Your task to perform on an android device: show emergency info Image 0: 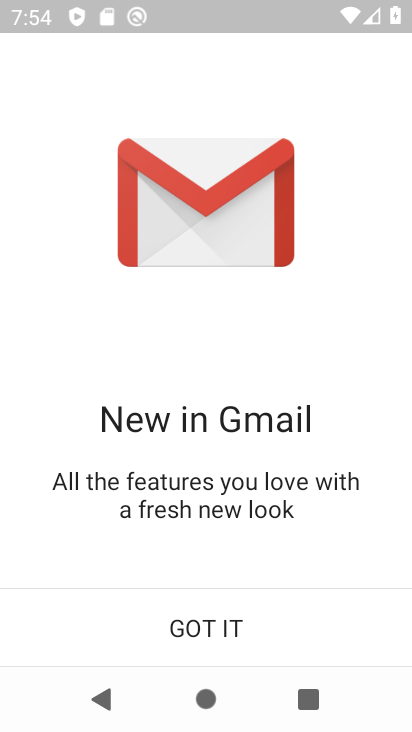
Step 0: click (186, 627)
Your task to perform on an android device: show emergency info Image 1: 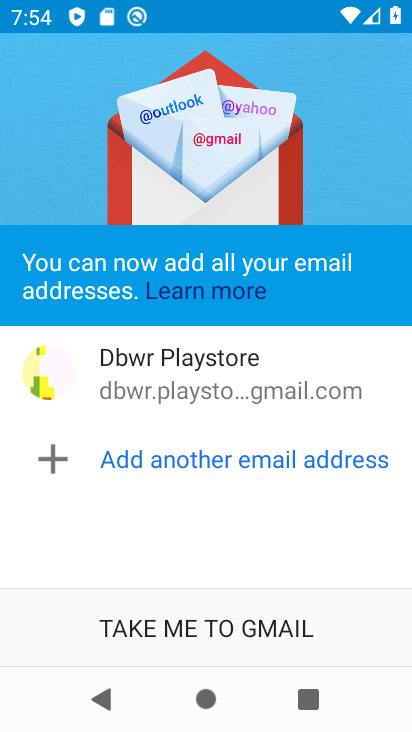
Step 1: press home button
Your task to perform on an android device: show emergency info Image 2: 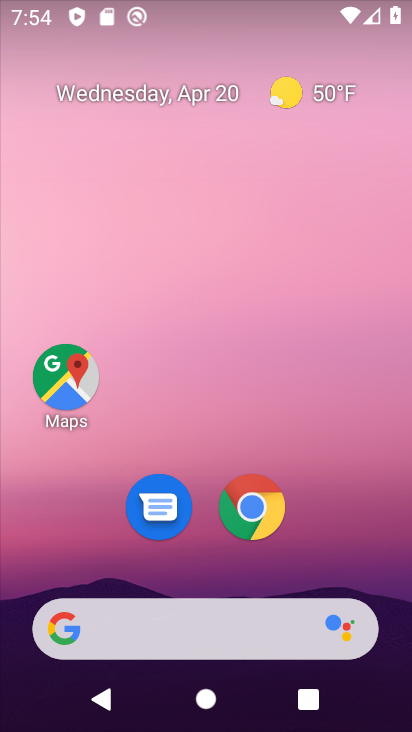
Step 2: drag from (266, 655) to (276, 233)
Your task to perform on an android device: show emergency info Image 3: 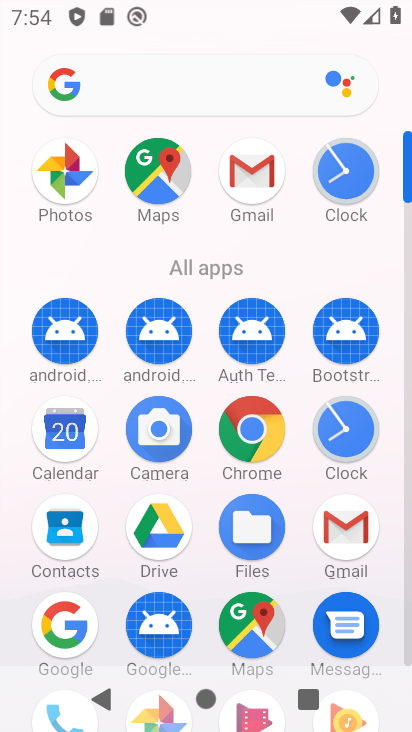
Step 3: drag from (213, 623) to (253, 310)
Your task to perform on an android device: show emergency info Image 4: 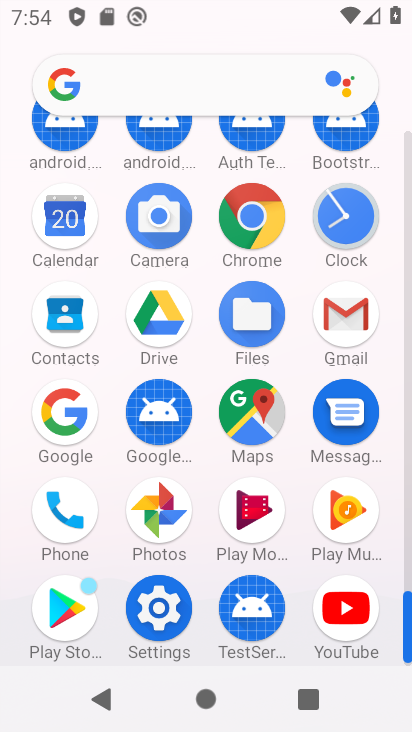
Step 4: click (155, 617)
Your task to perform on an android device: show emergency info Image 5: 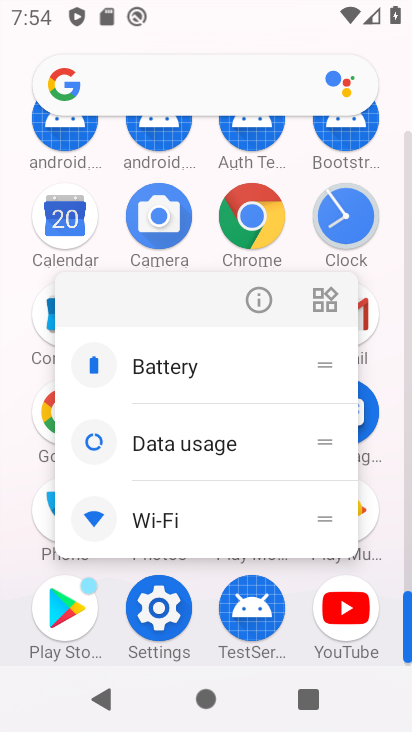
Step 5: click (175, 602)
Your task to perform on an android device: show emergency info Image 6: 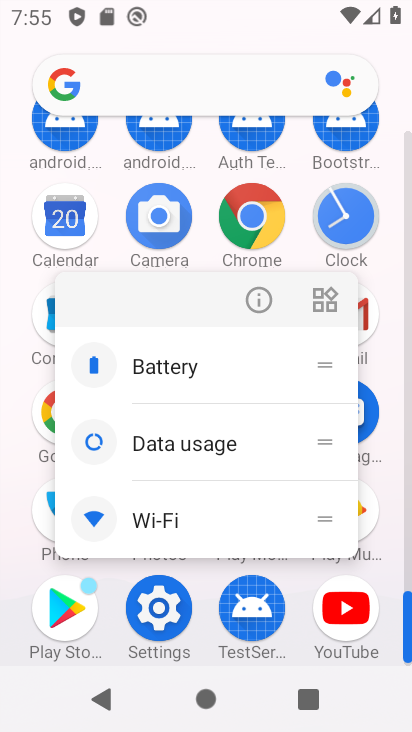
Step 6: click (156, 608)
Your task to perform on an android device: show emergency info Image 7: 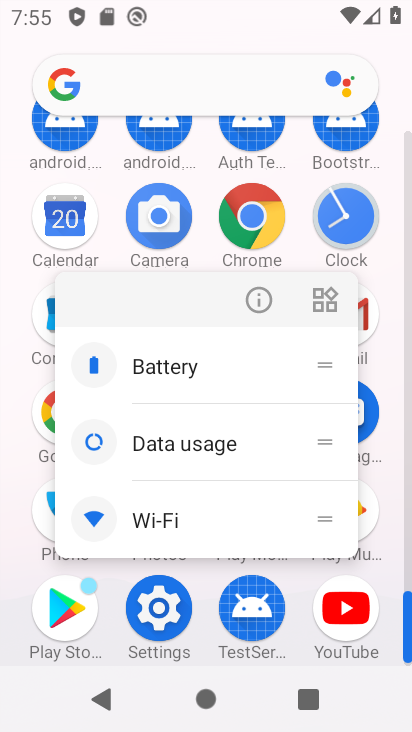
Step 7: click (160, 608)
Your task to perform on an android device: show emergency info Image 8: 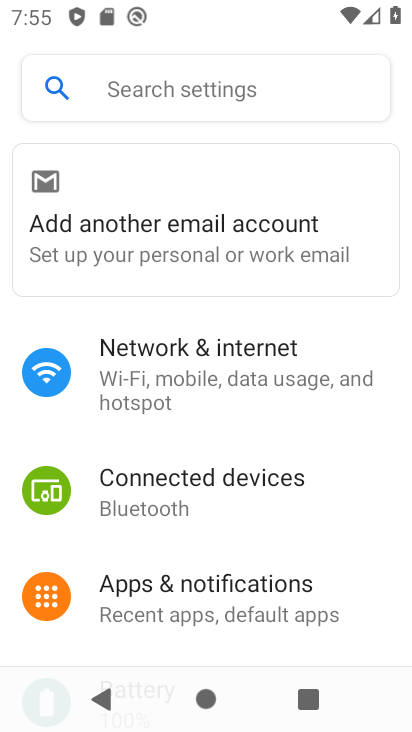
Step 8: drag from (187, 563) to (250, 274)
Your task to perform on an android device: show emergency info Image 9: 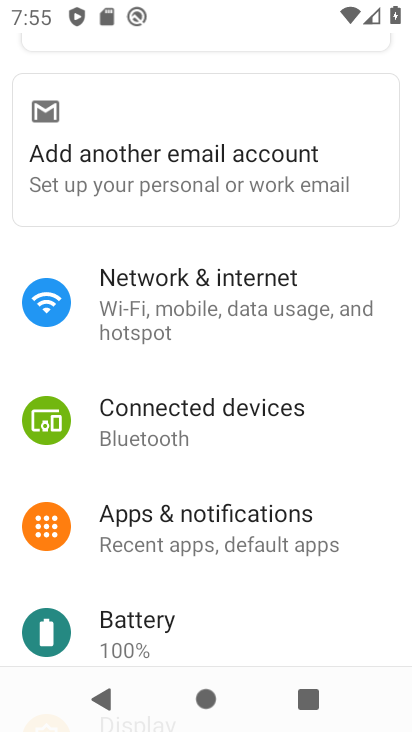
Step 9: drag from (207, 534) to (247, 331)
Your task to perform on an android device: show emergency info Image 10: 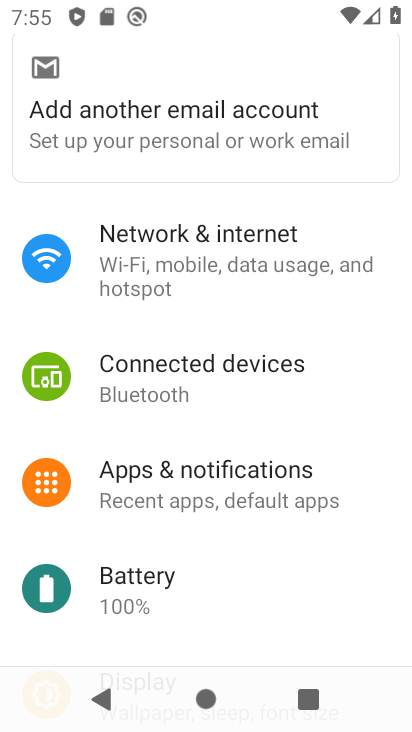
Step 10: drag from (207, 631) to (264, 437)
Your task to perform on an android device: show emergency info Image 11: 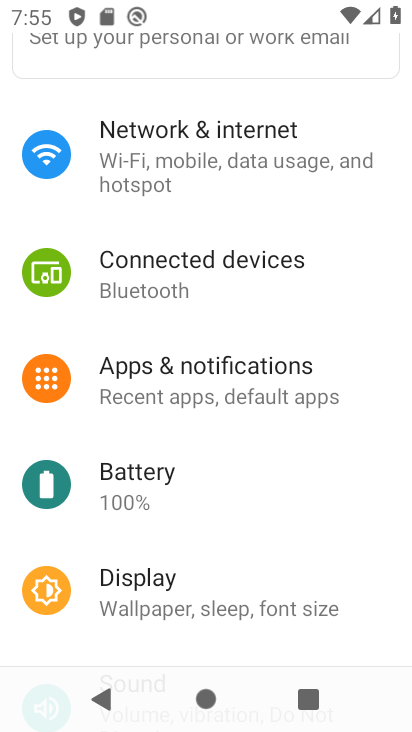
Step 11: drag from (194, 574) to (198, 118)
Your task to perform on an android device: show emergency info Image 12: 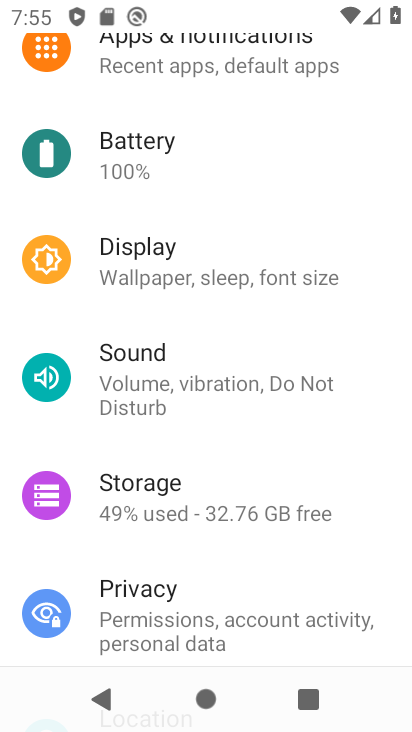
Step 12: drag from (191, 553) to (210, 268)
Your task to perform on an android device: show emergency info Image 13: 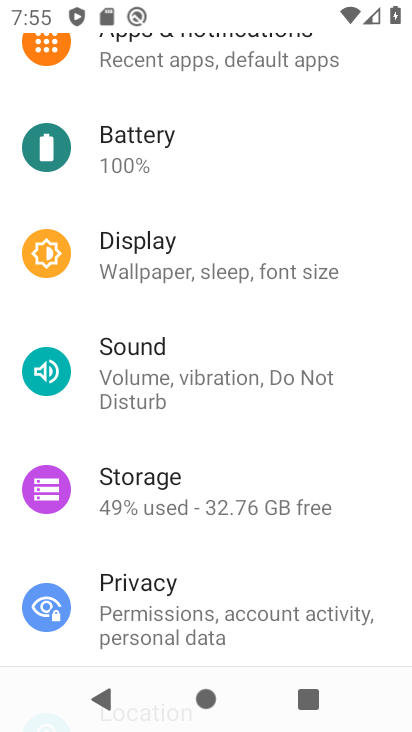
Step 13: drag from (176, 591) to (209, 336)
Your task to perform on an android device: show emergency info Image 14: 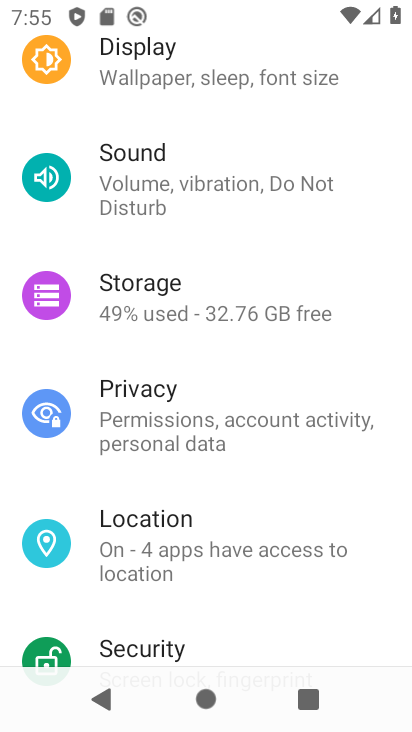
Step 14: drag from (196, 619) to (222, 270)
Your task to perform on an android device: show emergency info Image 15: 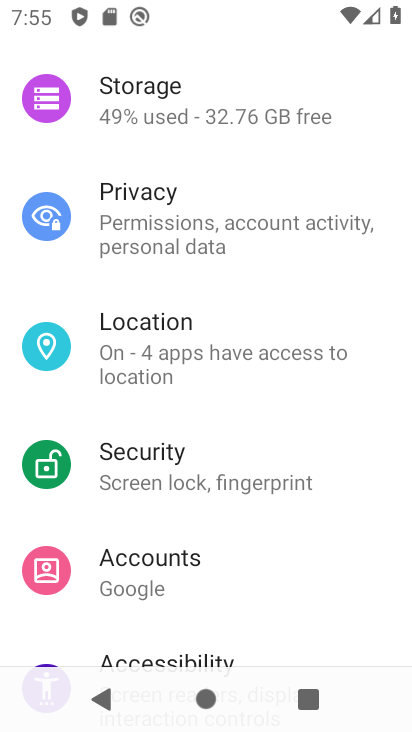
Step 15: drag from (219, 488) to (247, 117)
Your task to perform on an android device: show emergency info Image 16: 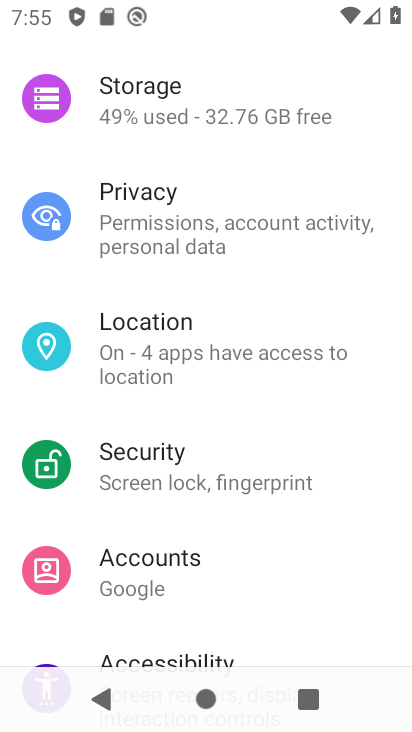
Step 16: drag from (197, 565) to (247, 166)
Your task to perform on an android device: show emergency info Image 17: 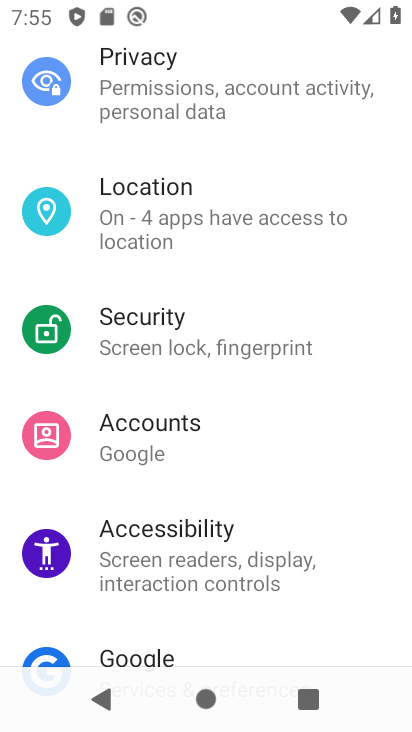
Step 17: drag from (240, 567) to (297, 200)
Your task to perform on an android device: show emergency info Image 18: 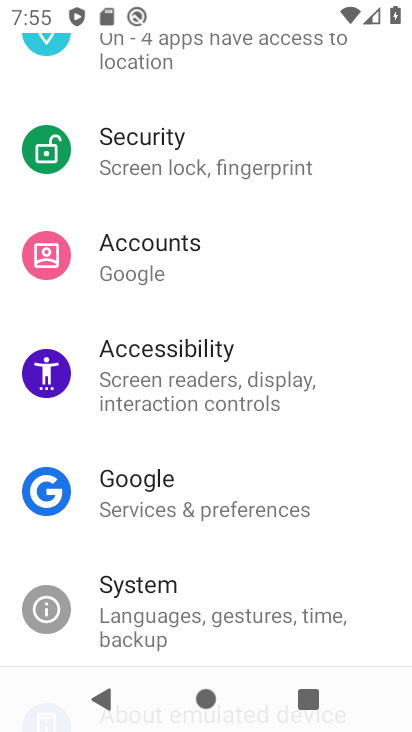
Step 18: drag from (205, 614) to (286, 157)
Your task to perform on an android device: show emergency info Image 19: 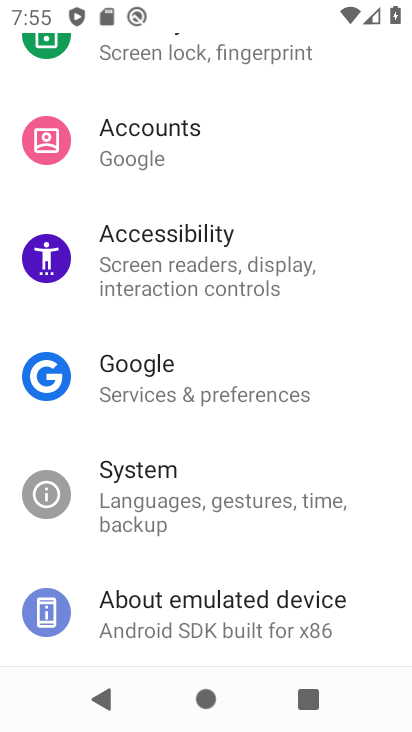
Step 19: drag from (203, 506) to (238, 387)
Your task to perform on an android device: show emergency info Image 20: 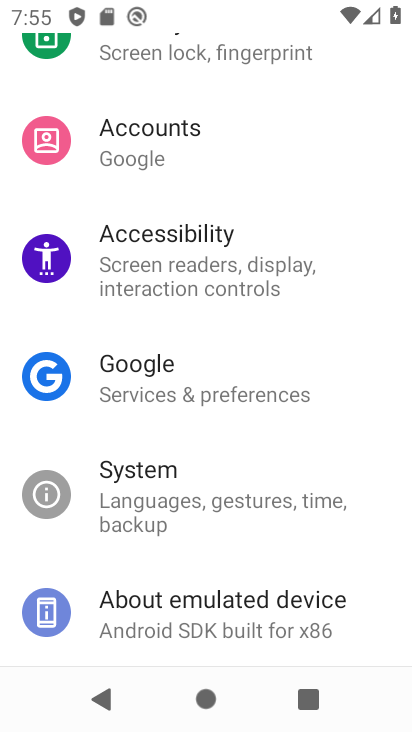
Step 20: click (189, 596)
Your task to perform on an android device: show emergency info Image 21: 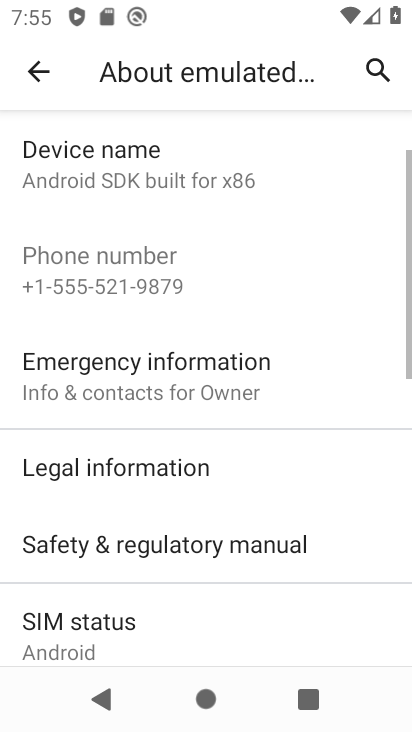
Step 21: click (155, 373)
Your task to perform on an android device: show emergency info Image 22: 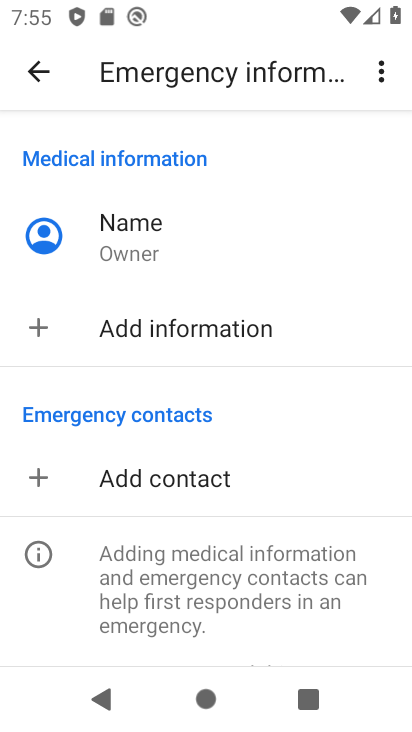
Step 22: task complete